Your task to perform on an android device: turn smart compose on in the gmail app Image 0: 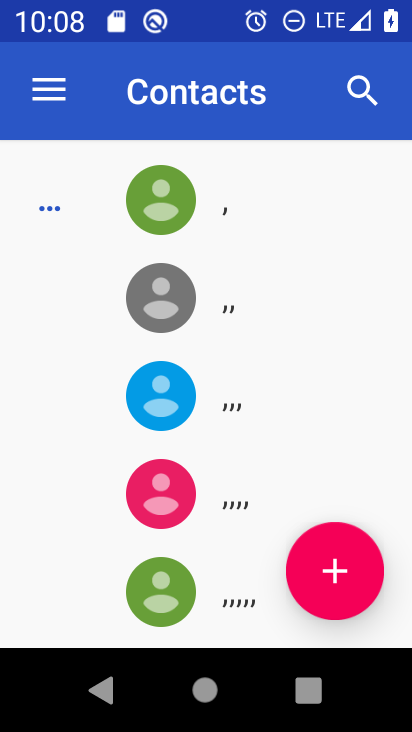
Step 0: press home button
Your task to perform on an android device: turn smart compose on in the gmail app Image 1: 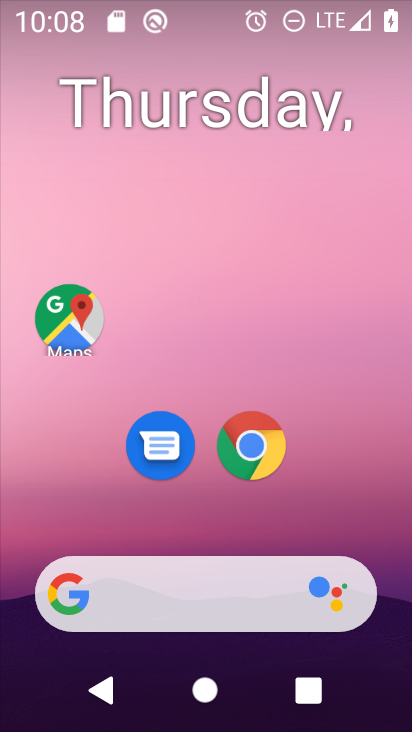
Step 1: drag from (401, 616) to (343, 51)
Your task to perform on an android device: turn smart compose on in the gmail app Image 2: 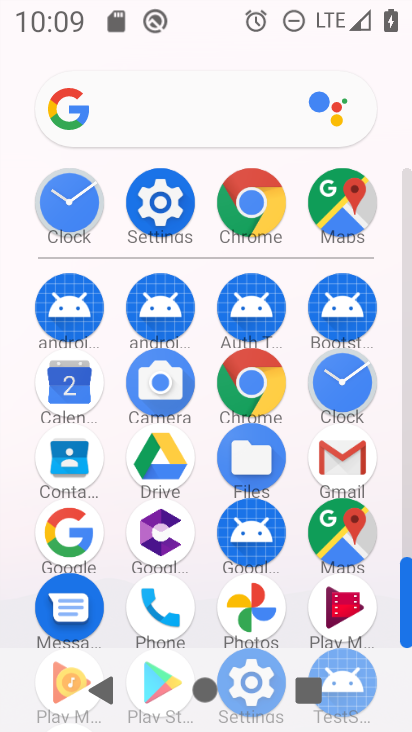
Step 2: click (342, 458)
Your task to perform on an android device: turn smart compose on in the gmail app Image 3: 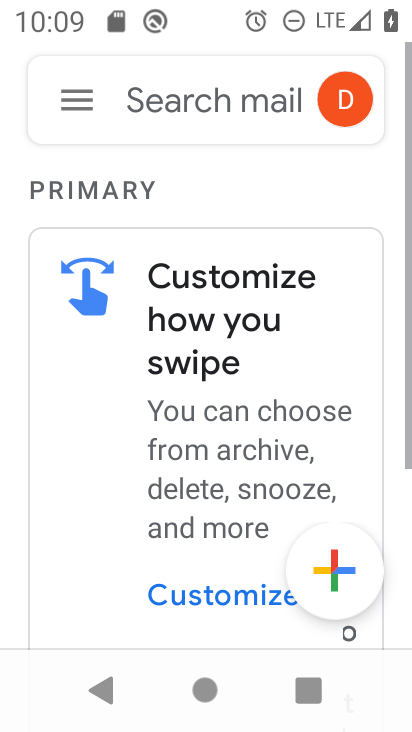
Step 3: click (76, 106)
Your task to perform on an android device: turn smart compose on in the gmail app Image 4: 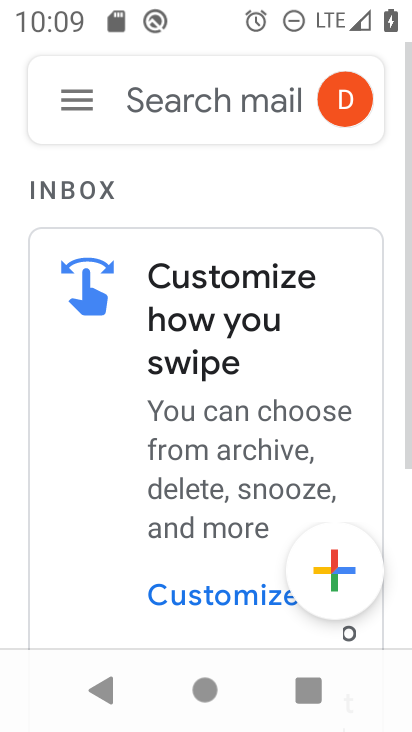
Step 4: click (82, 97)
Your task to perform on an android device: turn smart compose on in the gmail app Image 5: 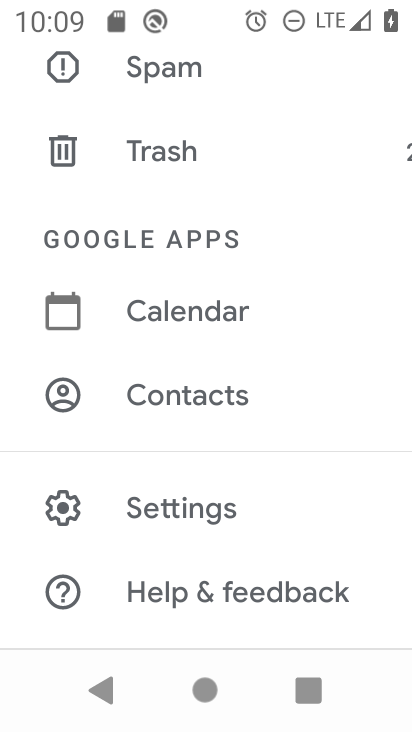
Step 5: click (185, 501)
Your task to perform on an android device: turn smart compose on in the gmail app Image 6: 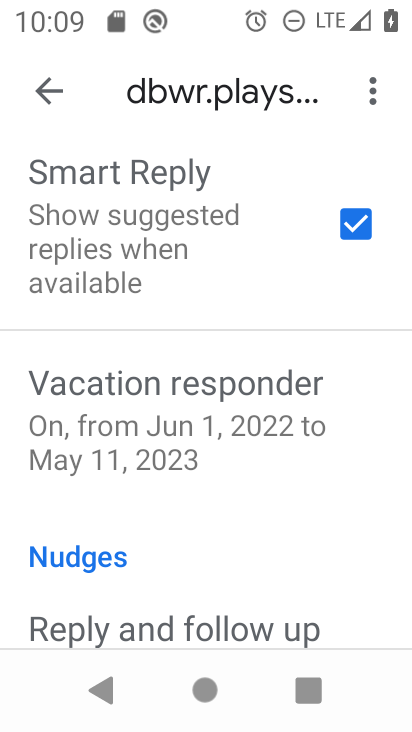
Step 6: task complete